Your task to perform on an android device: What's the weather going to be tomorrow? Image 0: 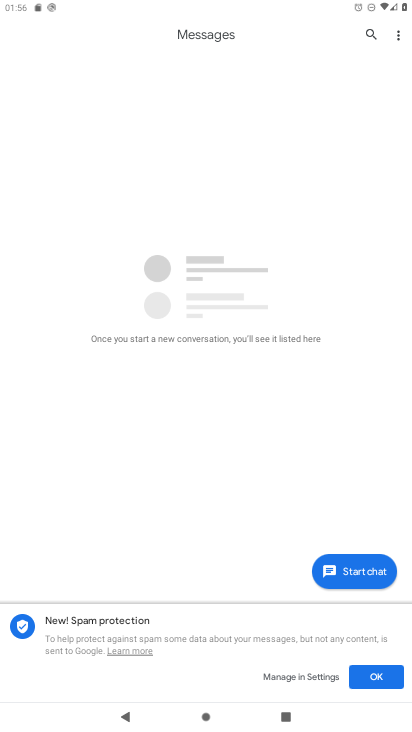
Step 0: press home button
Your task to perform on an android device: What's the weather going to be tomorrow? Image 1: 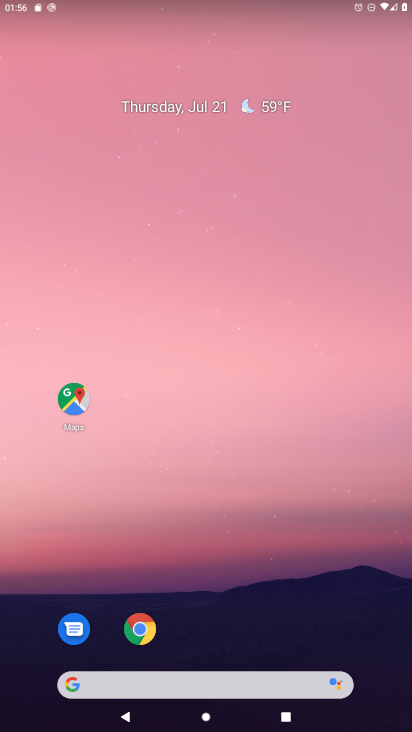
Step 1: click (264, 109)
Your task to perform on an android device: What's the weather going to be tomorrow? Image 2: 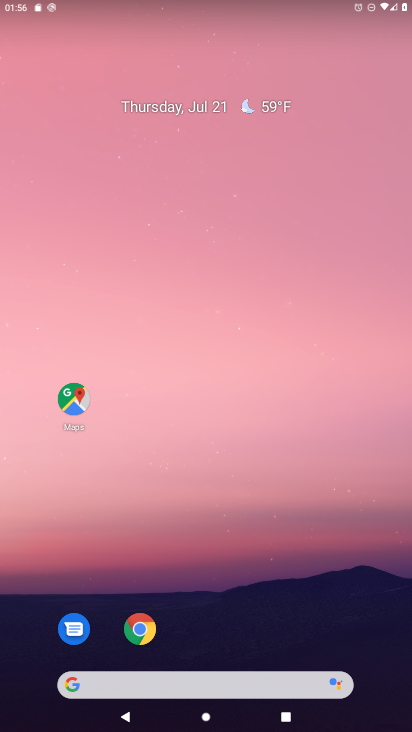
Step 2: click (246, 105)
Your task to perform on an android device: What's the weather going to be tomorrow? Image 3: 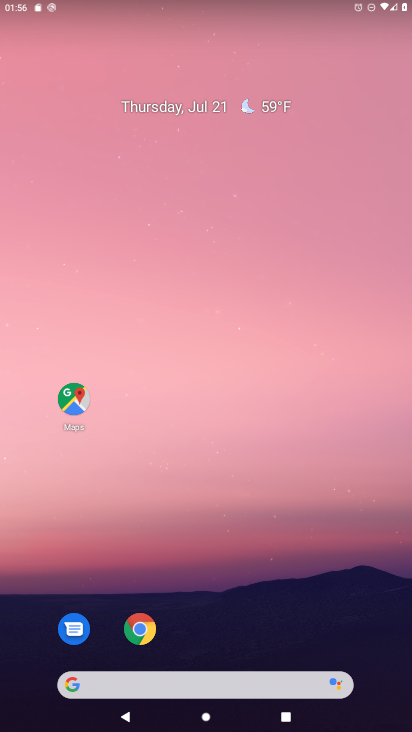
Step 3: click (264, 111)
Your task to perform on an android device: What's the weather going to be tomorrow? Image 4: 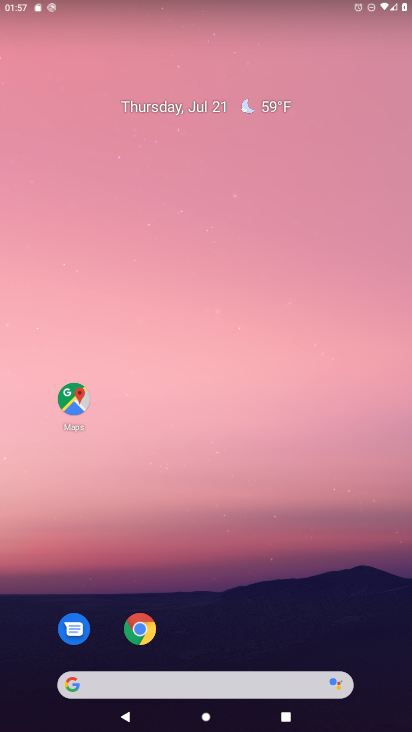
Step 4: drag from (5, 304) to (380, 310)
Your task to perform on an android device: What's the weather going to be tomorrow? Image 5: 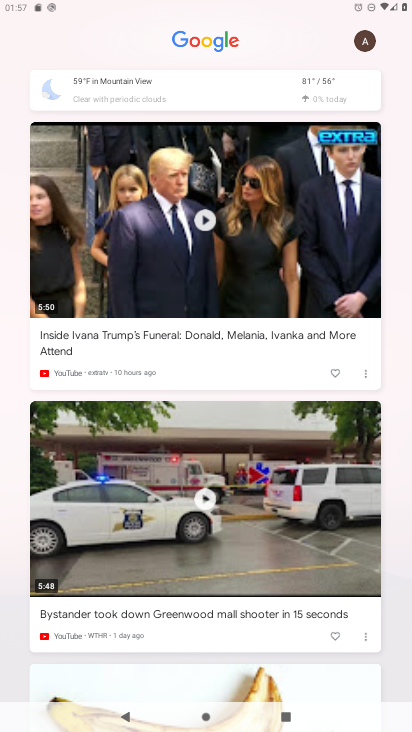
Step 5: click (314, 80)
Your task to perform on an android device: What's the weather going to be tomorrow? Image 6: 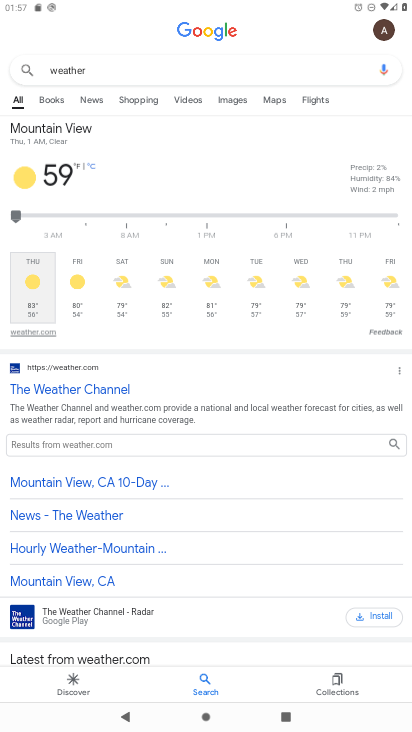
Step 6: task complete